Your task to perform on an android device: Open settings on Google Maps Image 0: 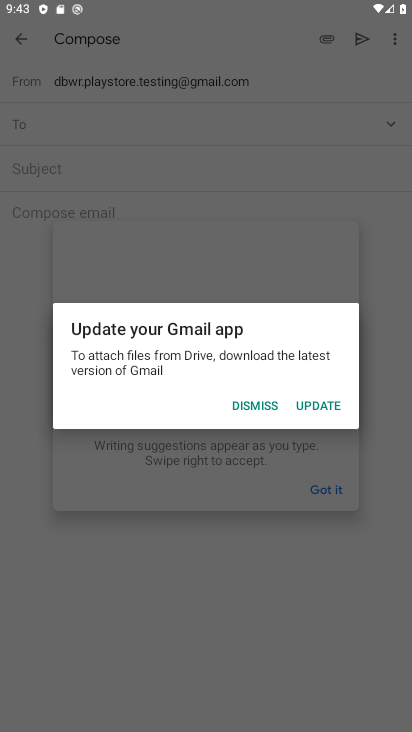
Step 0: press home button
Your task to perform on an android device: Open settings on Google Maps Image 1: 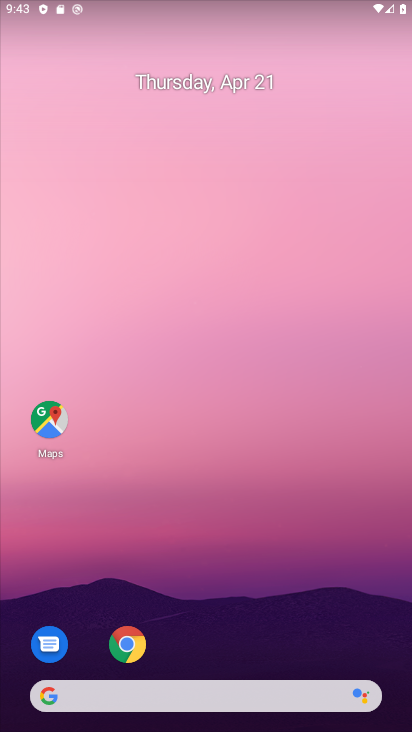
Step 1: drag from (191, 672) to (108, 263)
Your task to perform on an android device: Open settings on Google Maps Image 2: 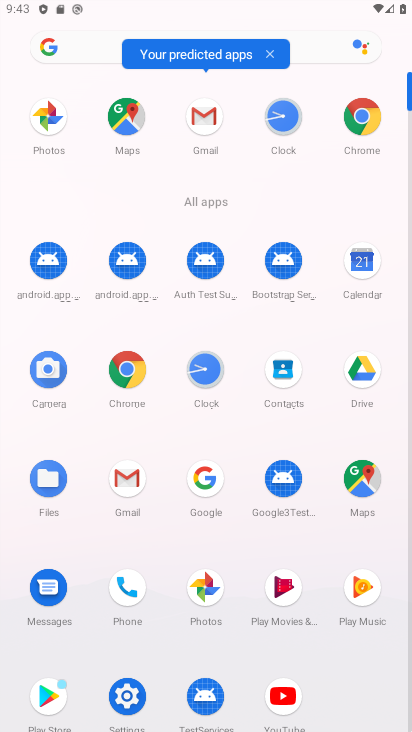
Step 2: click (123, 127)
Your task to perform on an android device: Open settings on Google Maps Image 3: 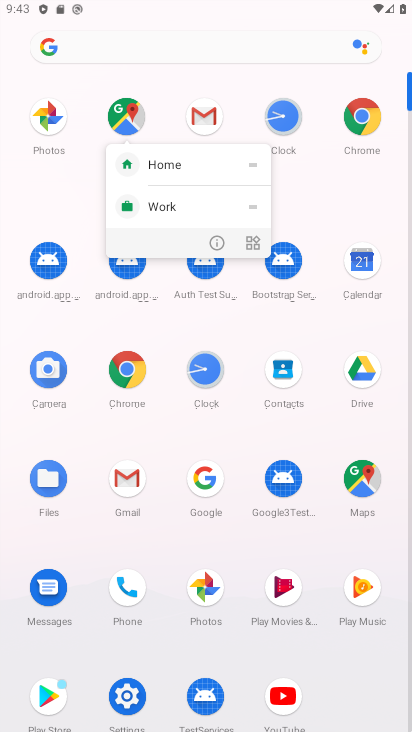
Step 3: click (125, 121)
Your task to perform on an android device: Open settings on Google Maps Image 4: 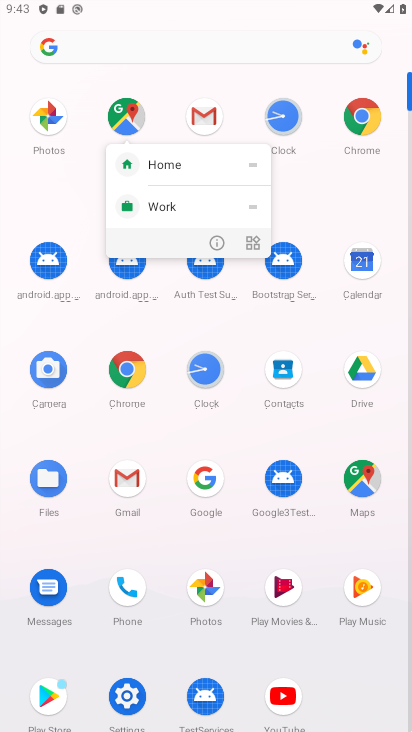
Step 4: click (126, 117)
Your task to perform on an android device: Open settings on Google Maps Image 5: 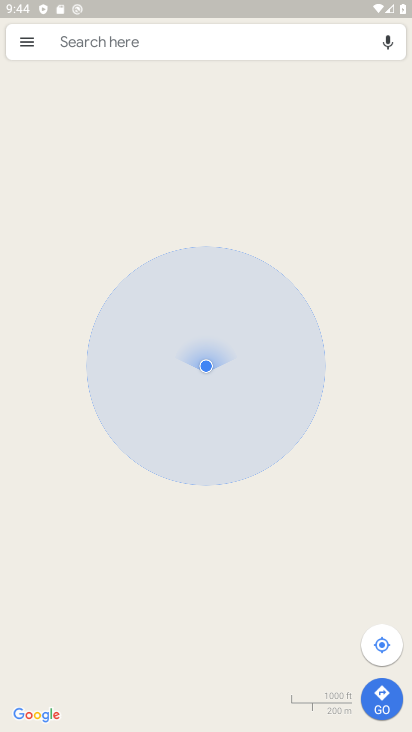
Step 5: click (31, 46)
Your task to perform on an android device: Open settings on Google Maps Image 6: 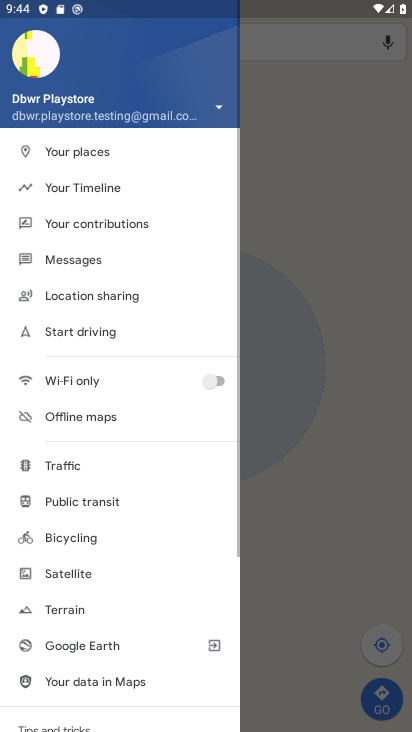
Step 6: drag from (117, 634) to (121, 405)
Your task to perform on an android device: Open settings on Google Maps Image 7: 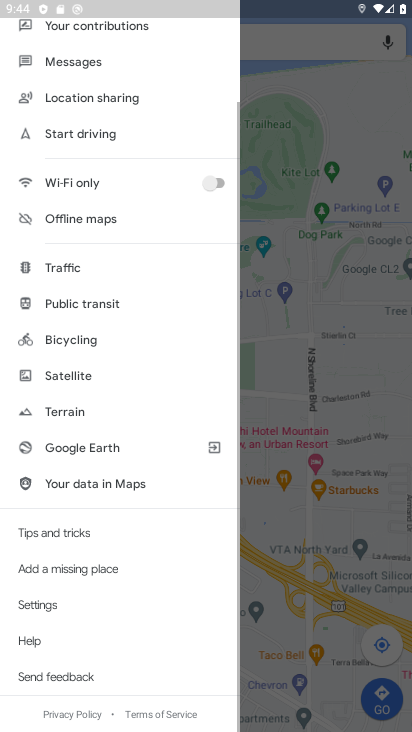
Step 7: click (33, 607)
Your task to perform on an android device: Open settings on Google Maps Image 8: 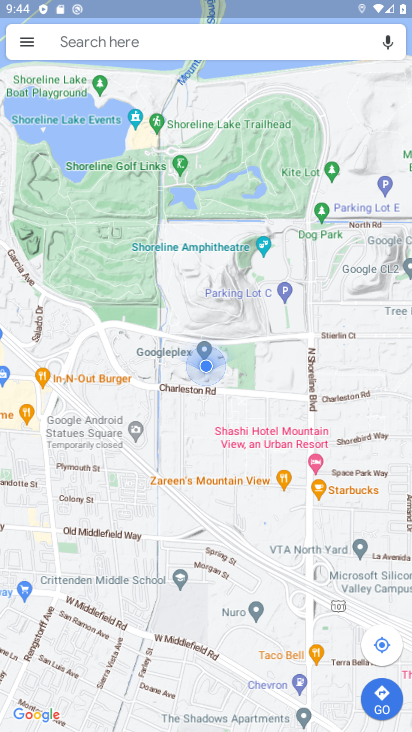
Step 8: click (23, 40)
Your task to perform on an android device: Open settings on Google Maps Image 9: 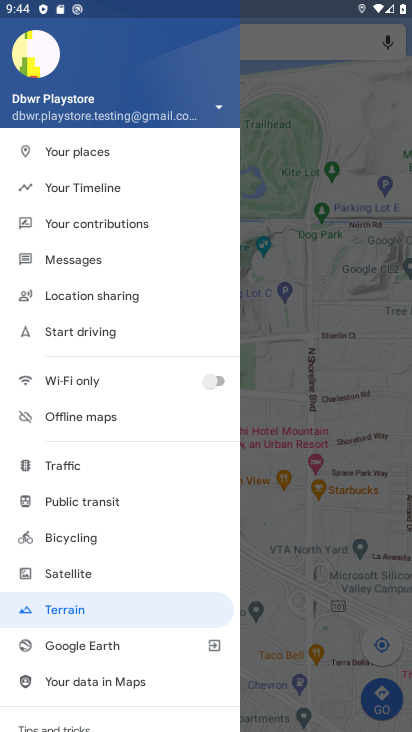
Step 9: drag from (96, 633) to (97, 318)
Your task to perform on an android device: Open settings on Google Maps Image 10: 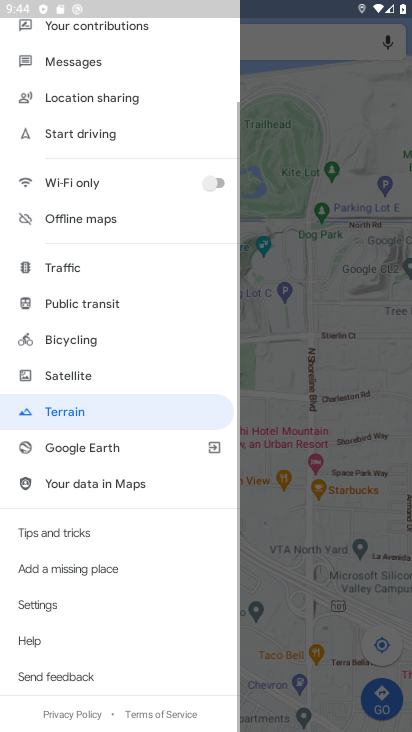
Step 10: click (47, 603)
Your task to perform on an android device: Open settings on Google Maps Image 11: 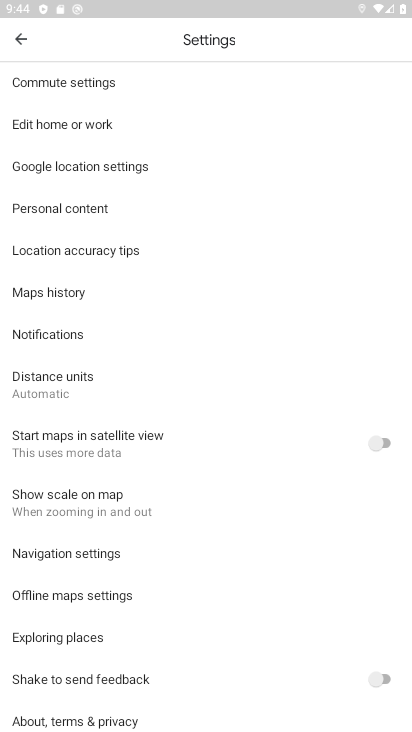
Step 11: task complete